Your task to perform on an android device: turn on notifications settings in the gmail app Image 0: 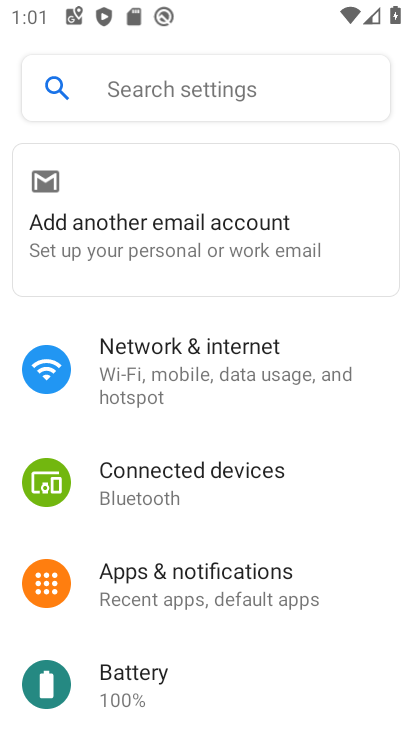
Step 0: press home button
Your task to perform on an android device: turn on notifications settings in the gmail app Image 1: 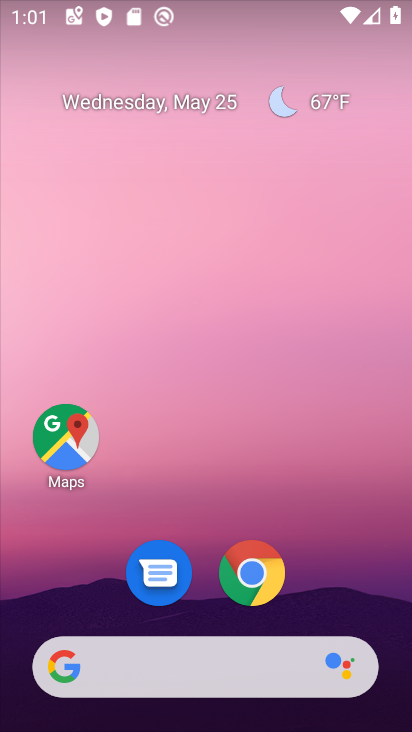
Step 1: drag from (371, 616) to (337, 99)
Your task to perform on an android device: turn on notifications settings in the gmail app Image 2: 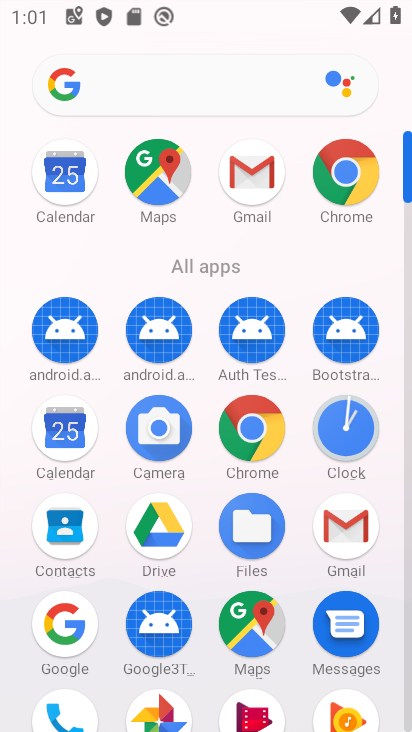
Step 2: click (408, 677)
Your task to perform on an android device: turn on notifications settings in the gmail app Image 3: 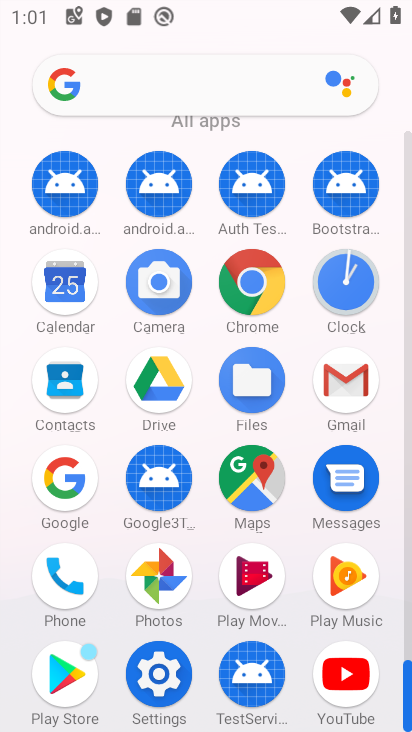
Step 3: click (344, 380)
Your task to perform on an android device: turn on notifications settings in the gmail app Image 4: 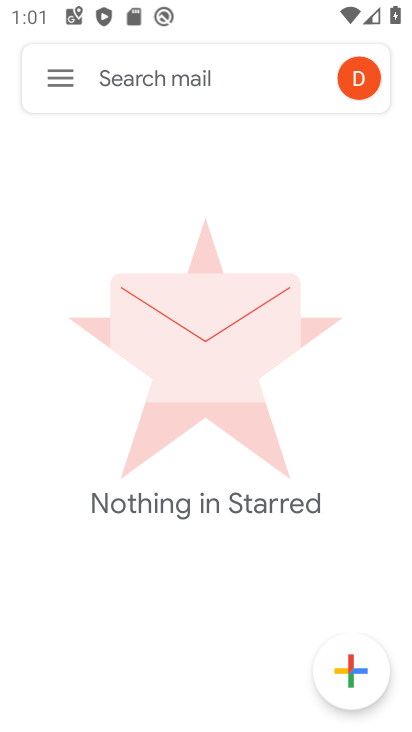
Step 4: click (56, 75)
Your task to perform on an android device: turn on notifications settings in the gmail app Image 5: 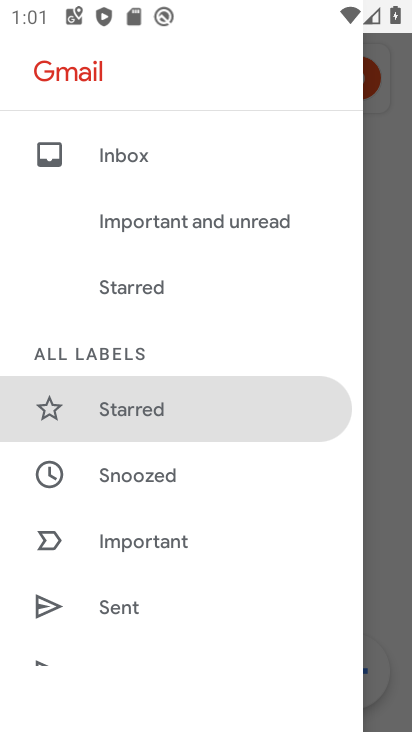
Step 5: drag from (237, 581) to (240, 148)
Your task to perform on an android device: turn on notifications settings in the gmail app Image 6: 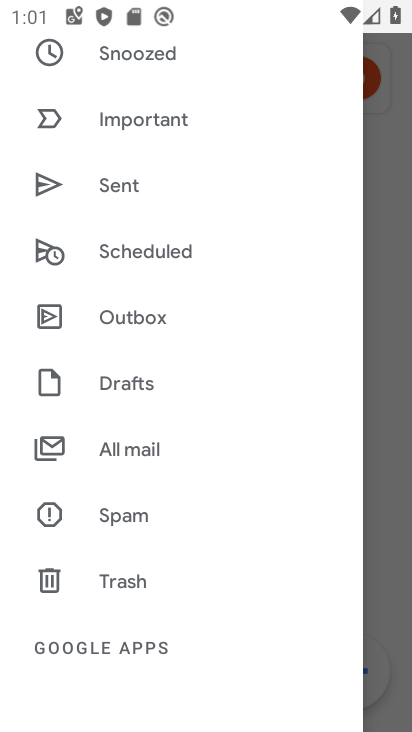
Step 6: drag from (216, 619) to (210, 210)
Your task to perform on an android device: turn on notifications settings in the gmail app Image 7: 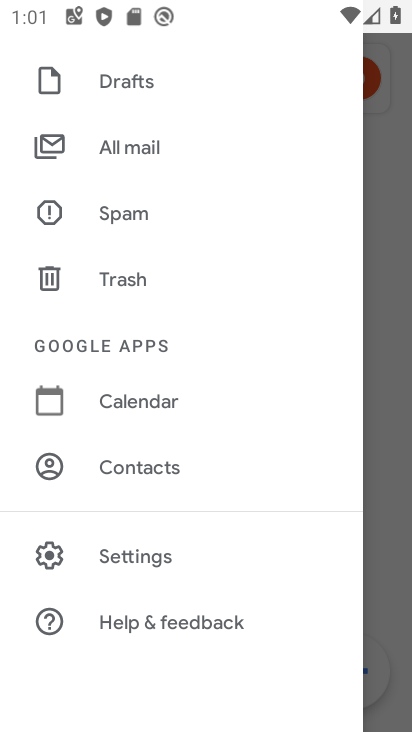
Step 7: click (115, 555)
Your task to perform on an android device: turn on notifications settings in the gmail app Image 8: 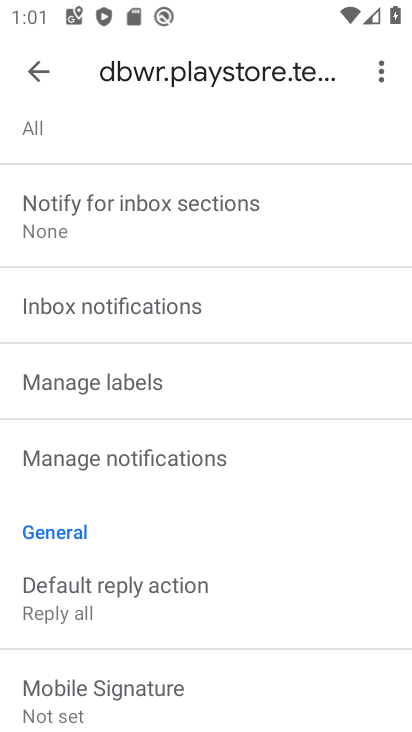
Step 8: click (115, 450)
Your task to perform on an android device: turn on notifications settings in the gmail app Image 9: 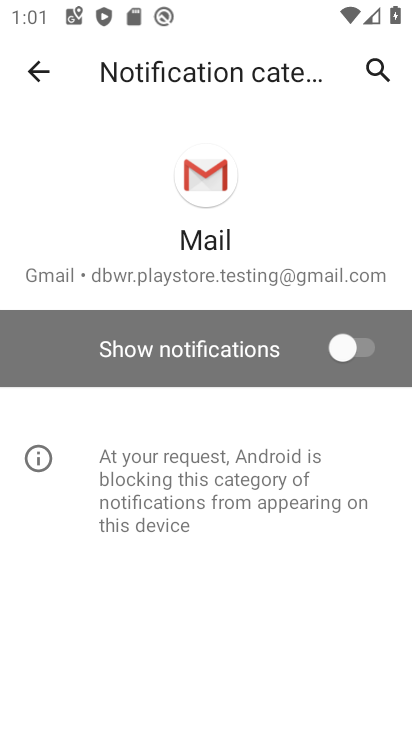
Step 9: click (348, 346)
Your task to perform on an android device: turn on notifications settings in the gmail app Image 10: 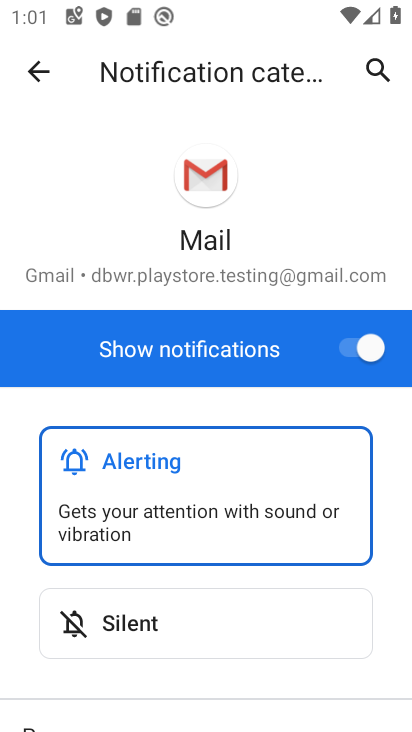
Step 10: task complete